Your task to perform on an android device: turn off picture-in-picture Image 0: 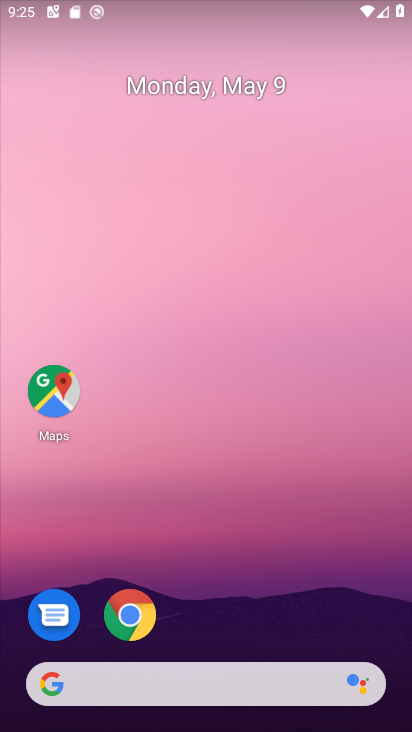
Step 0: drag from (296, 716) to (205, 278)
Your task to perform on an android device: turn off picture-in-picture Image 1: 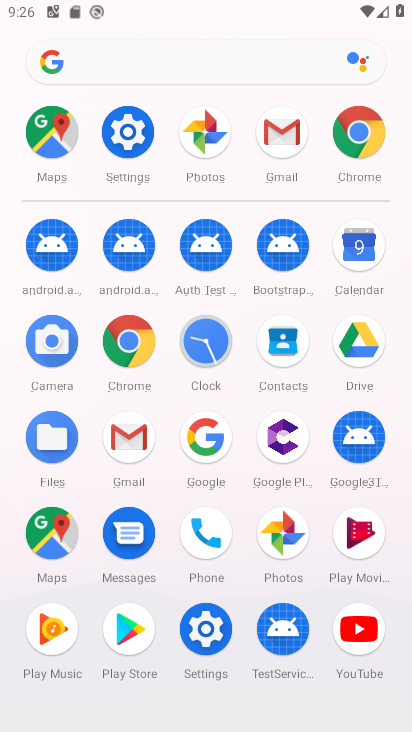
Step 1: click (196, 643)
Your task to perform on an android device: turn off picture-in-picture Image 2: 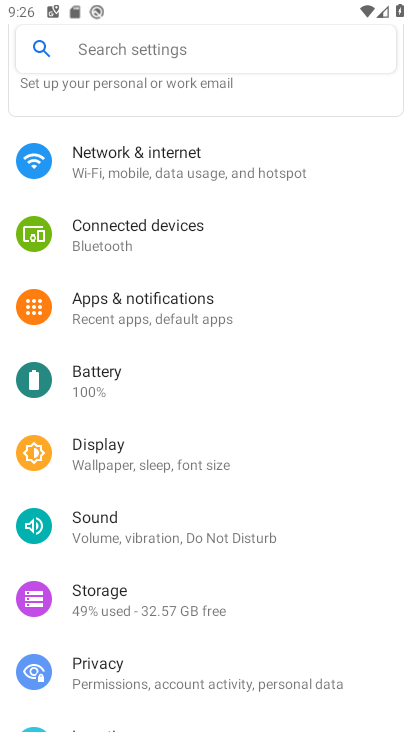
Step 2: click (193, 47)
Your task to perform on an android device: turn off picture-in-picture Image 3: 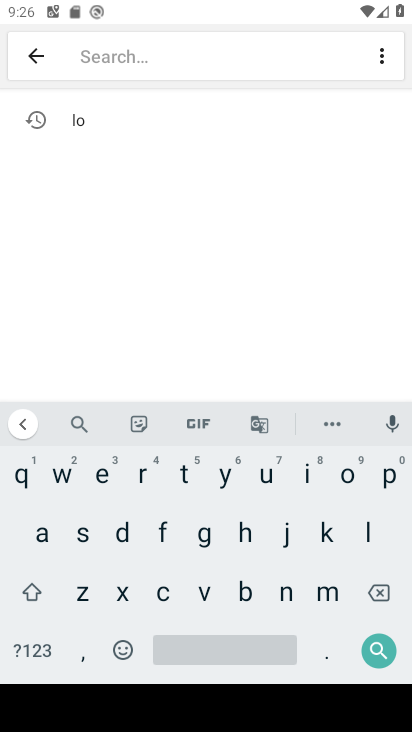
Step 3: click (387, 484)
Your task to perform on an android device: turn off picture-in-picture Image 4: 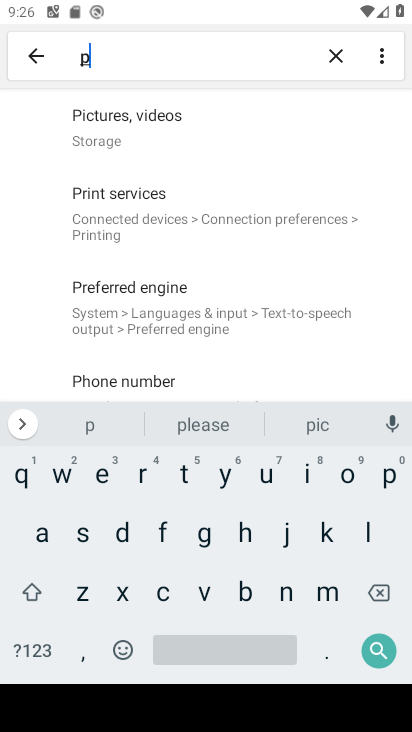
Step 4: click (307, 471)
Your task to perform on an android device: turn off picture-in-picture Image 5: 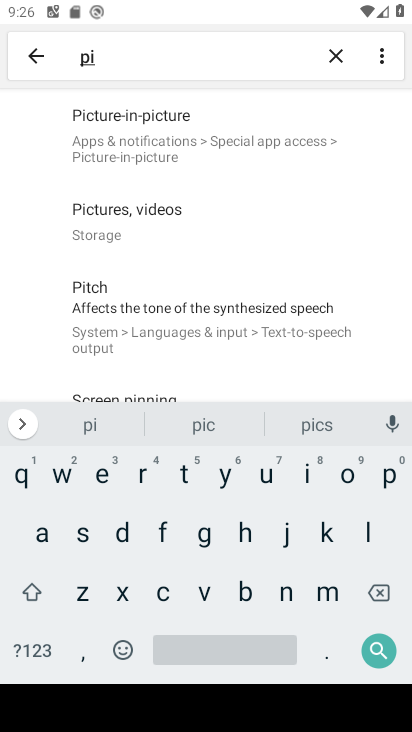
Step 5: click (159, 130)
Your task to perform on an android device: turn off picture-in-picture Image 6: 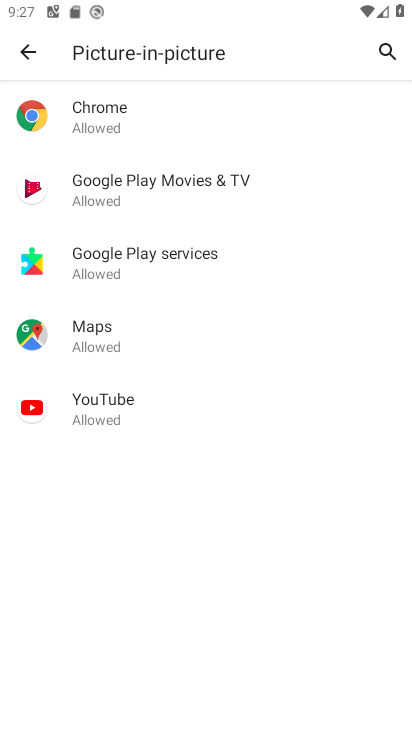
Step 6: task complete